Your task to perform on an android device: turn on wifi Image 0: 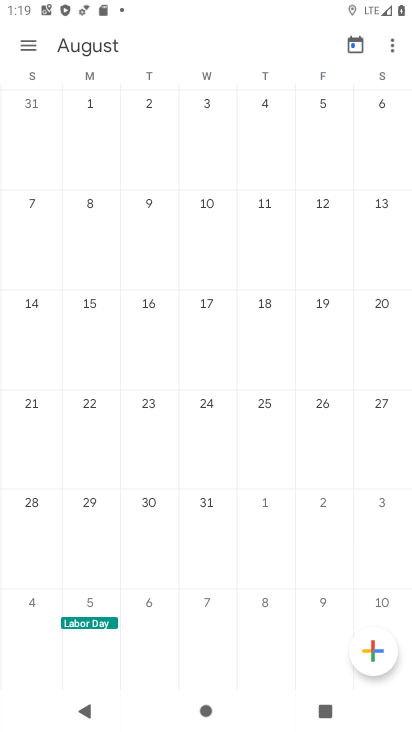
Step 0: drag from (272, 592) to (272, 546)
Your task to perform on an android device: turn on wifi Image 1: 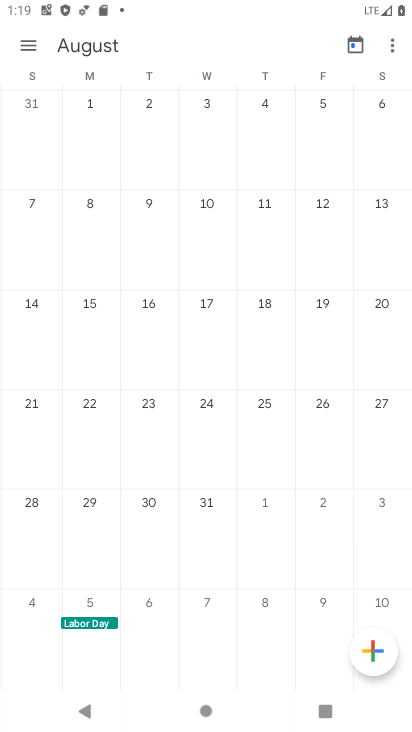
Step 1: press home button
Your task to perform on an android device: turn on wifi Image 2: 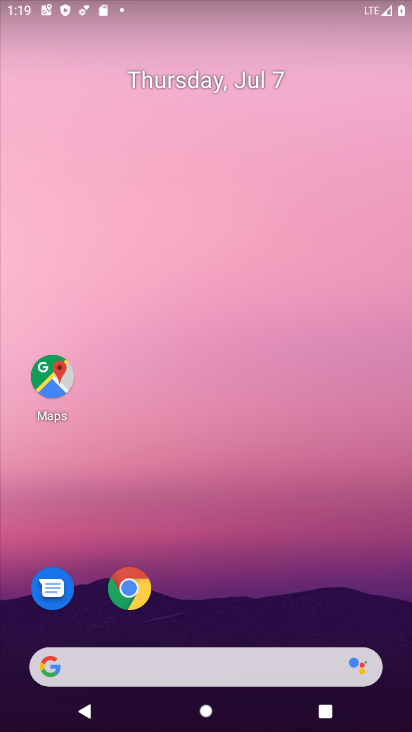
Step 2: drag from (220, 611) to (232, 182)
Your task to perform on an android device: turn on wifi Image 3: 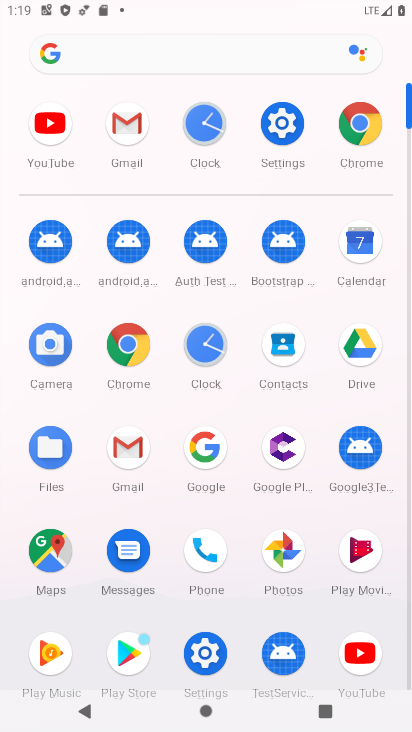
Step 3: click (281, 117)
Your task to perform on an android device: turn on wifi Image 4: 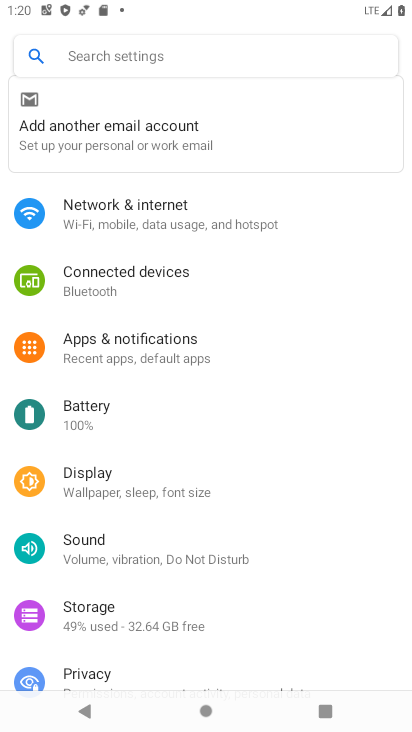
Step 4: click (179, 212)
Your task to perform on an android device: turn on wifi Image 5: 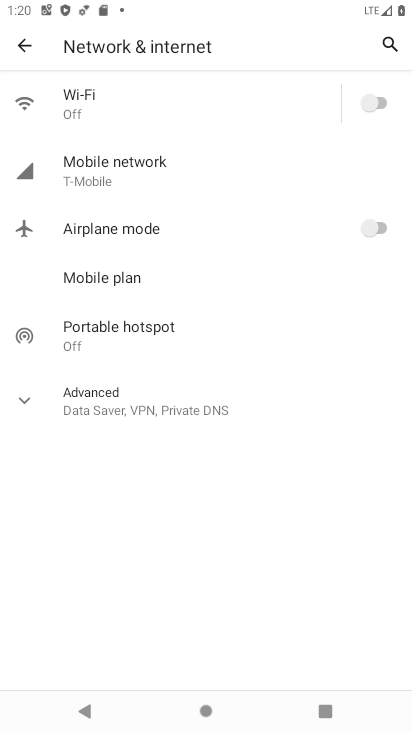
Step 5: click (373, 104)
Your task to perform on an android device: turn on wifi Image 6: 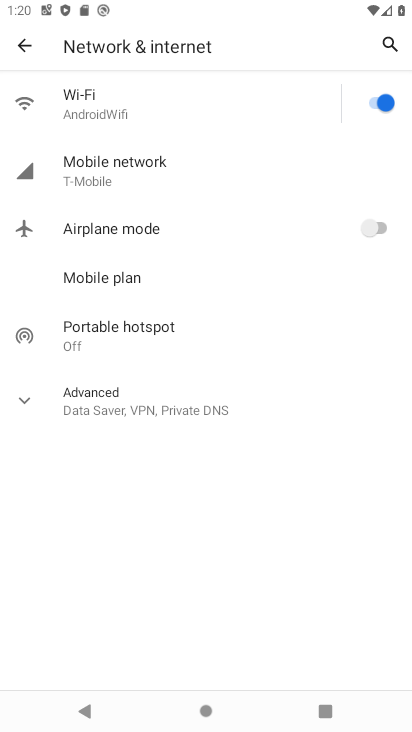
Step 6: task complete